Your task to perform on an android device: set default search engine in the chrome app Image 0: 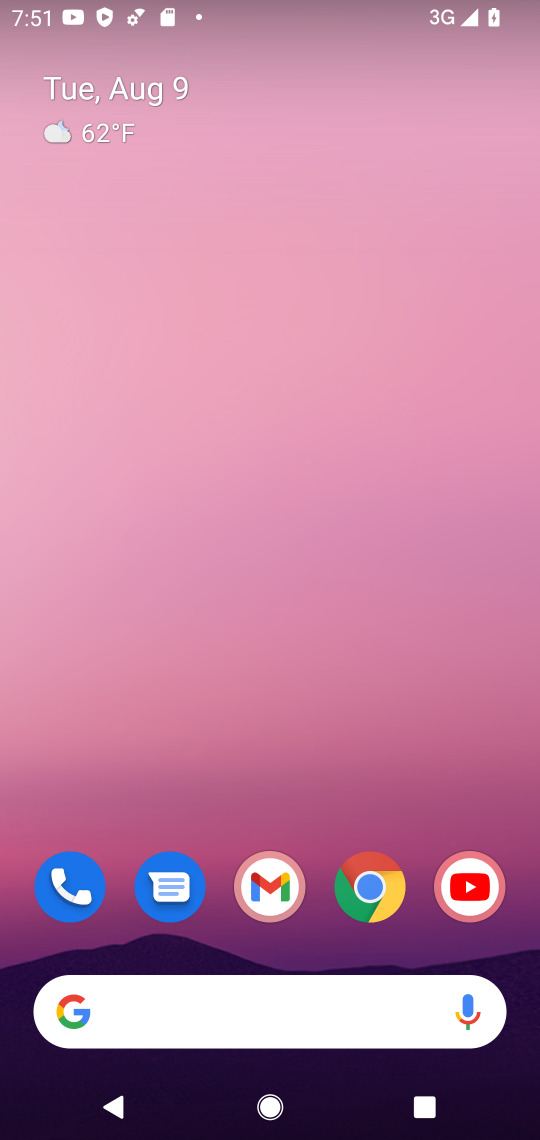
Step 0: click (382, 888)
Your task to perform on an android device: set default search engine in the chrome app Image 1: 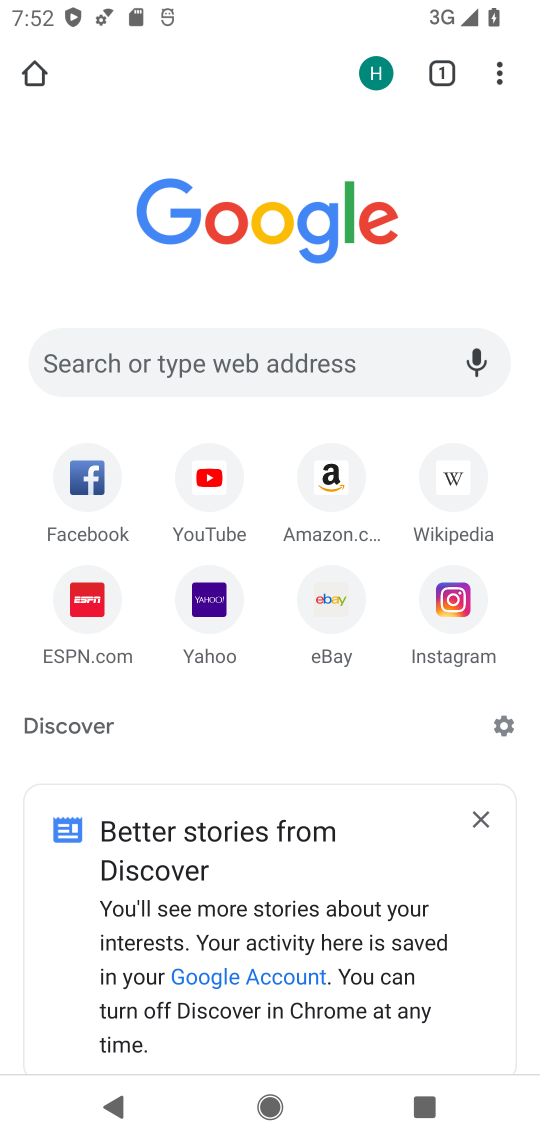
Step 1: click (494, 81)
Your task to perform on an android device: set default search engine in the chrome app Image 2: 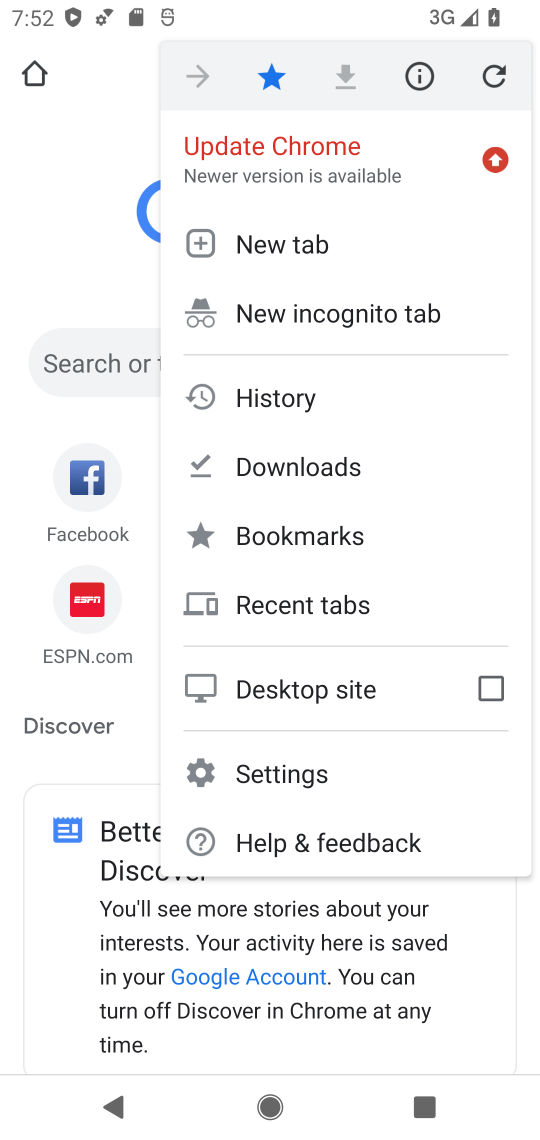
Step 2: click (295, 771)
Your task to perform on an android device: set default search engine in the chrome app Image 3: 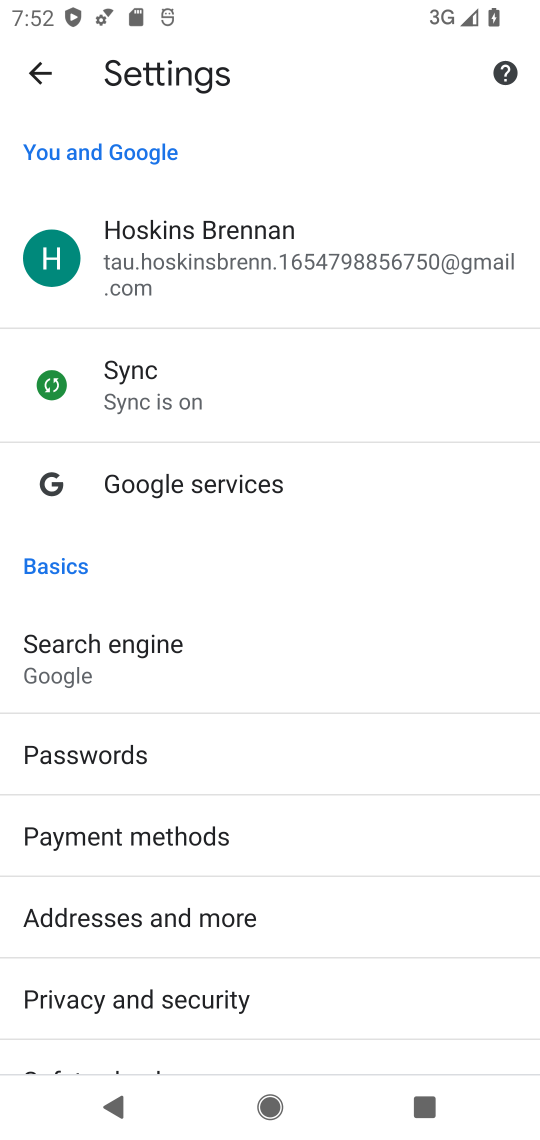
Step 3: click (218, 687)
Your task to perform on an android device: set default search engine in the chrome app Image 4: 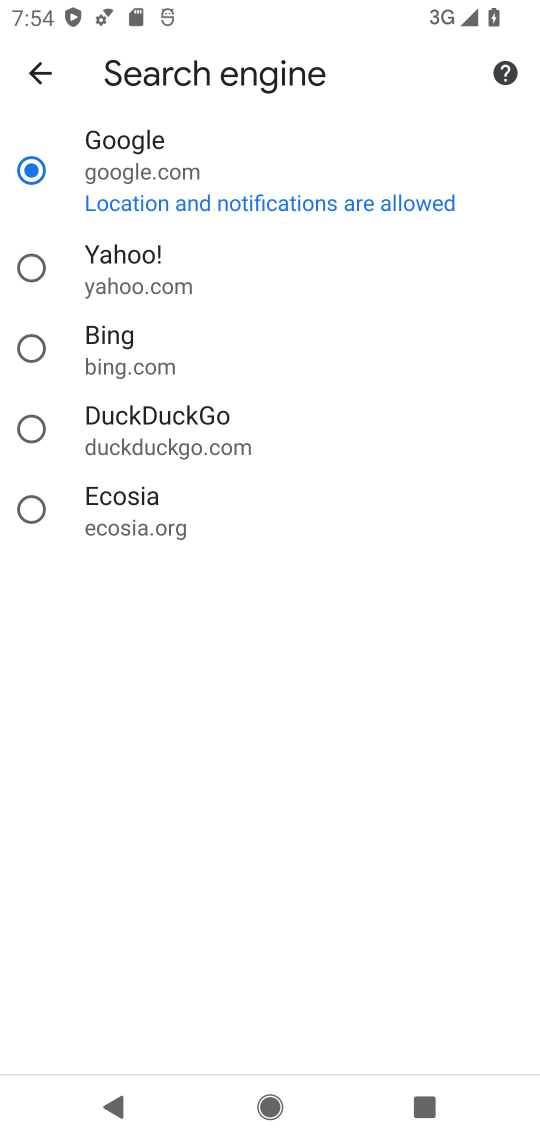
Step 4: task complete